Your task to perform on an android device: turn pop-ups on in chrome Image 0: 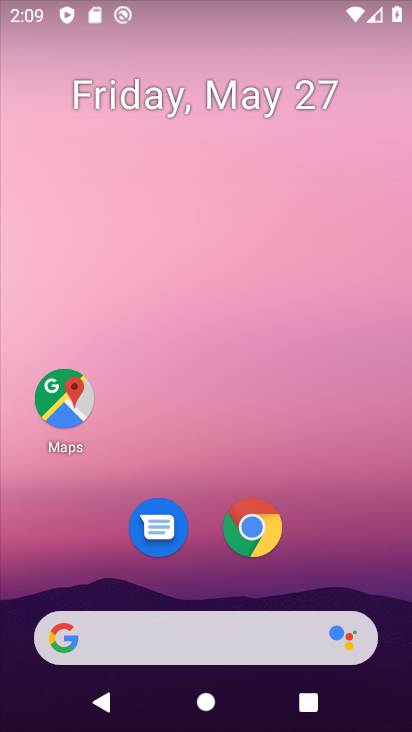
Step 0: drag from (185, 610) to (259, 113)
Your task to perform on an android device: turn pop-ups on in chrome Image 1: 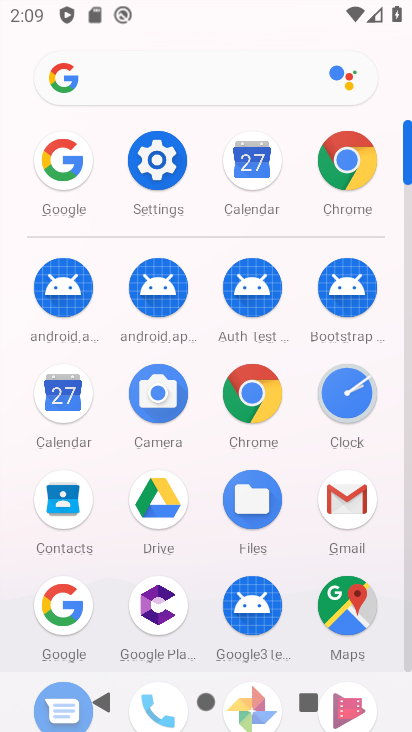
Step 1: click (337, 153)
Your task to perform on an android device: turn pop-ups on in chrome Image 2: 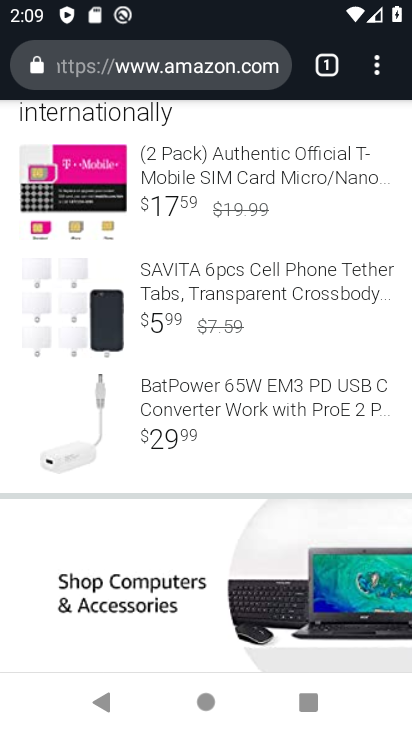
Step 2: click (379, 78)
Your task to perform on an android device: turn pop-ups on in chrome Image 3: 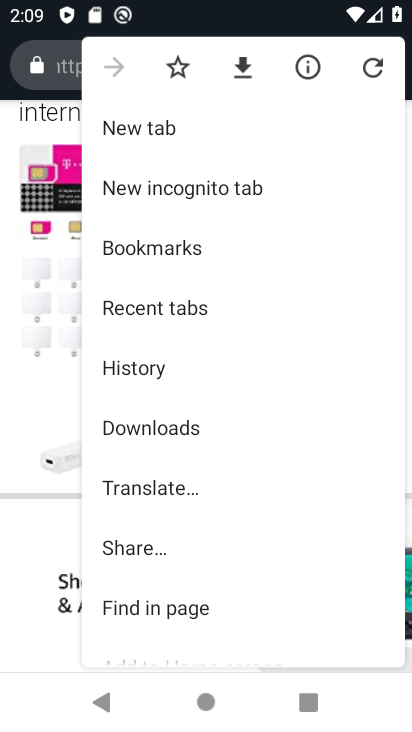
Step 3: drag from (153, 622) to (197, 178)
Your task to perform on an android device: turn pop-ups on in chrome Image 4: 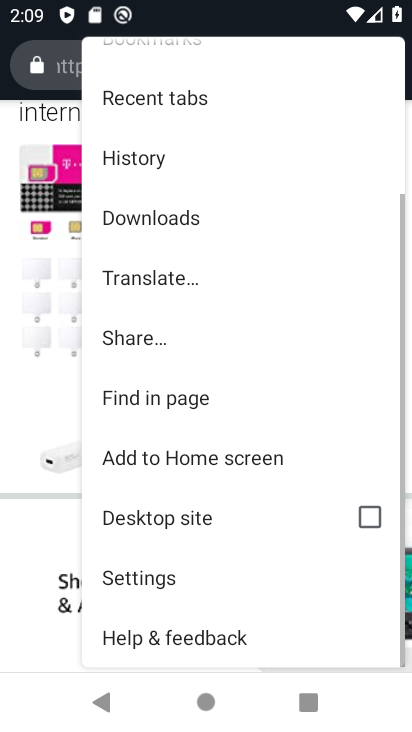
Step 4: click (151, 588)
Your task to perform on an android device: turn pop-ups on in chrome Image 5: 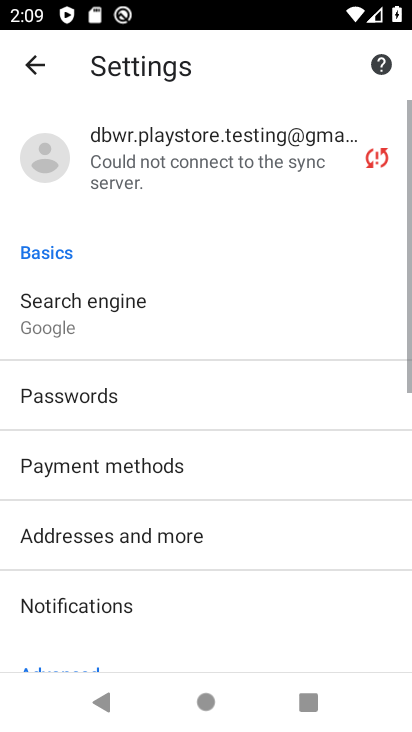
Step 5: drag from (108, 636) to (110, 247)
Your task to perform on an android device: turn pop-ups on in chrome Image 6: 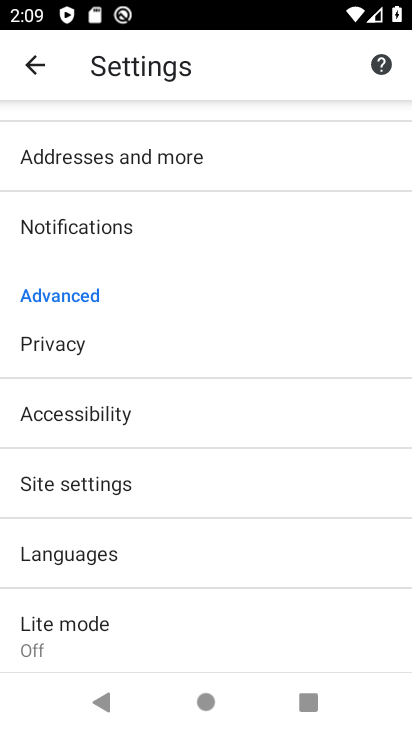
Step 6: click (81, 484)
Your task to perform on an android device: turn pop-ups on in chrome Image 7: 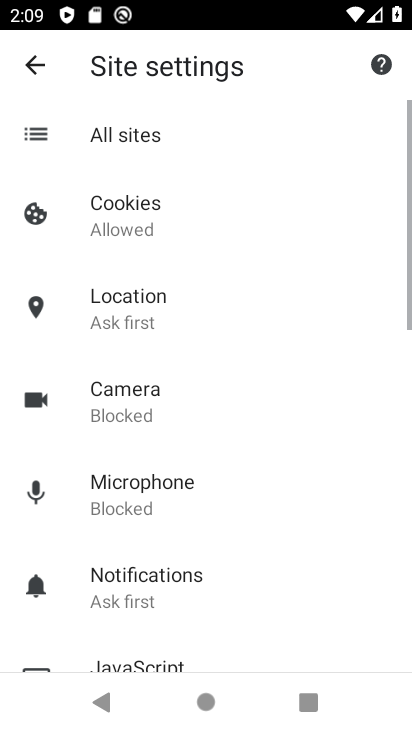
Step 7: drag from (127, 645) to (134, 248)
Your task to perform on an android device: turn pop-ups on in chrome Image 8: 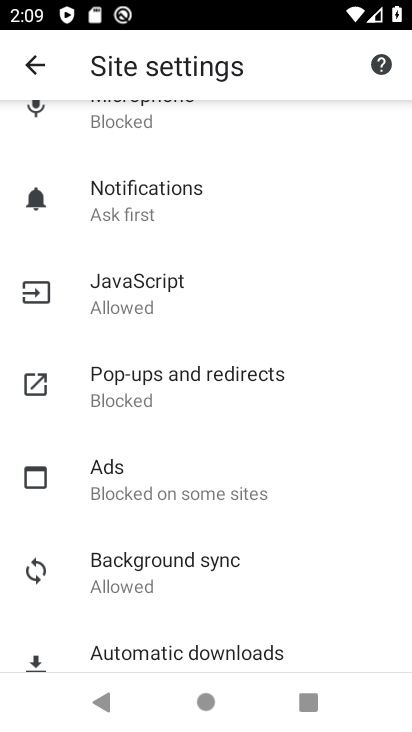
Step 8: click (183, 366)
Your task to perform on an android device: turn pop-ups on in chrome Image 9: 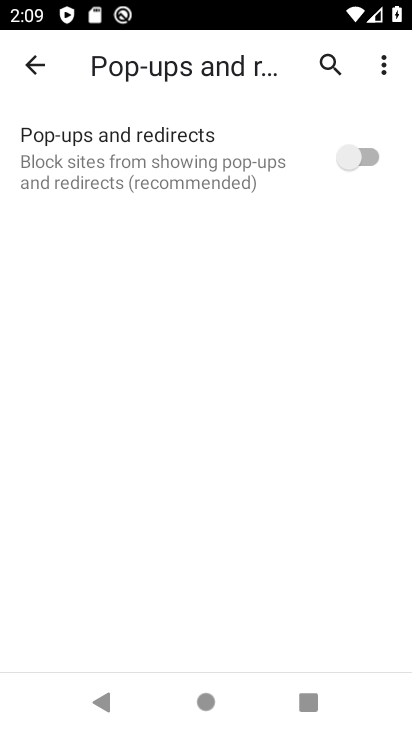
Step 9: click (370, 153)
Your task to perform on an android device: turn pop-ups on in chrome Image 10: 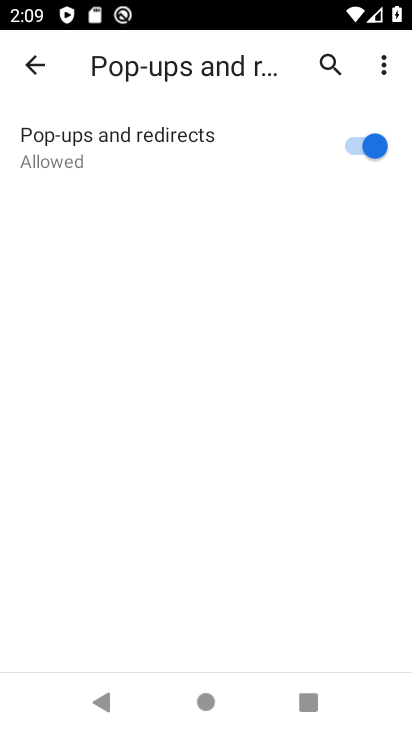
Step 10: task complete